Your task to perform on an android device: open wifi settings Image 0: 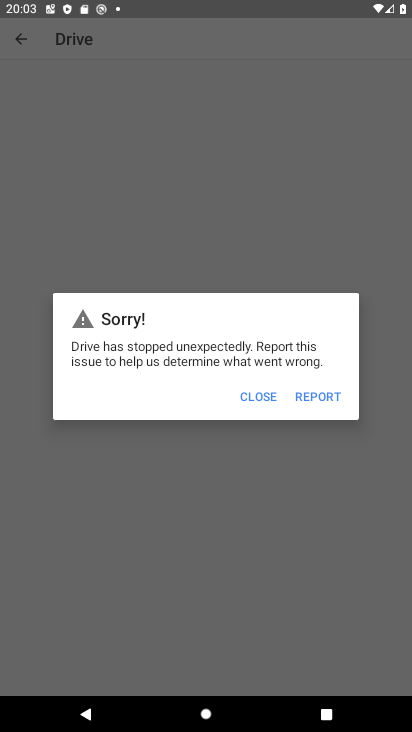
Step 0: press home button
Your task to perform on an android device: open wifi settings Image 1: 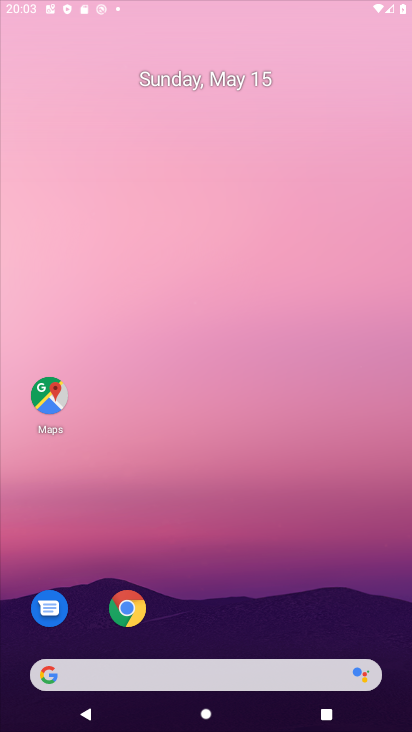
Step 1: drag from (239, 595) to (266, 57)
Your task to perform on an android device: open wifi settings Image 2: 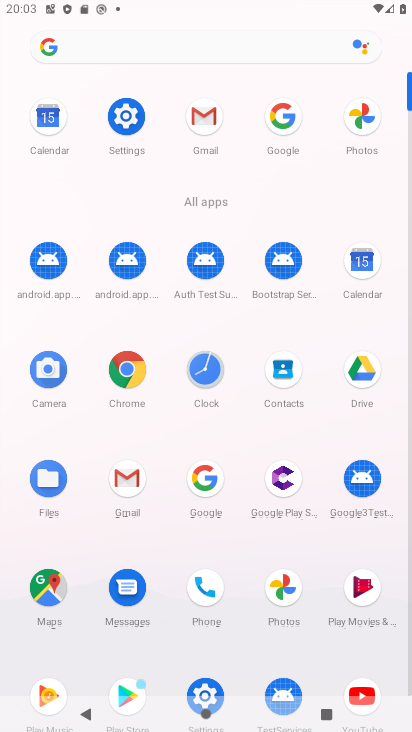
Step 2: click (129, 107)
Your task to perform on an android device: open wifi settings Image 3: 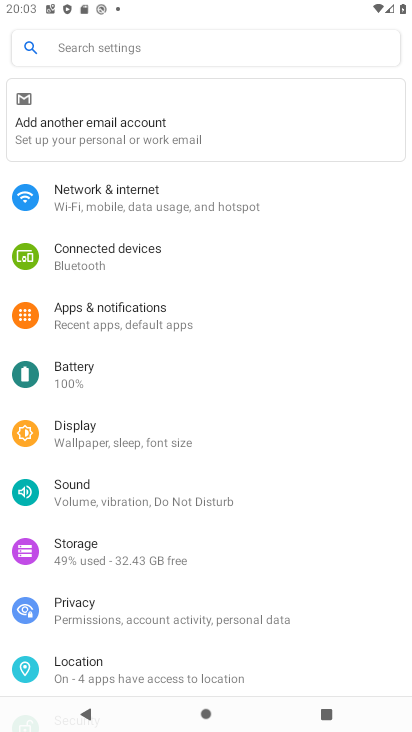
Step 3: click (170, 190)
Your task to perform on an android device: open wifi settings Image 4: 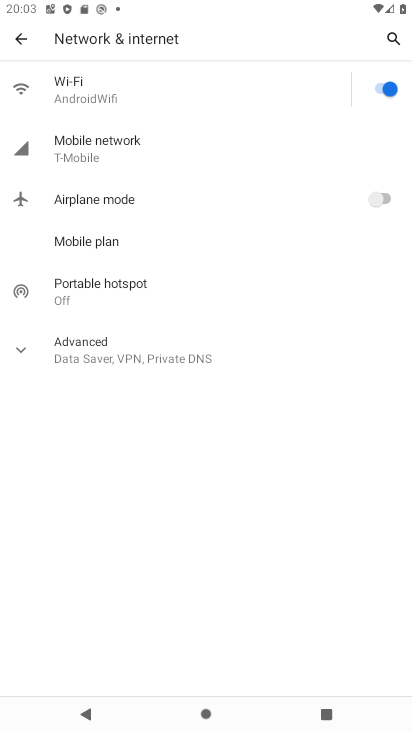
Step 4: click (117, 94)
Your task to perform on an android device: open wifi settings Image 5: 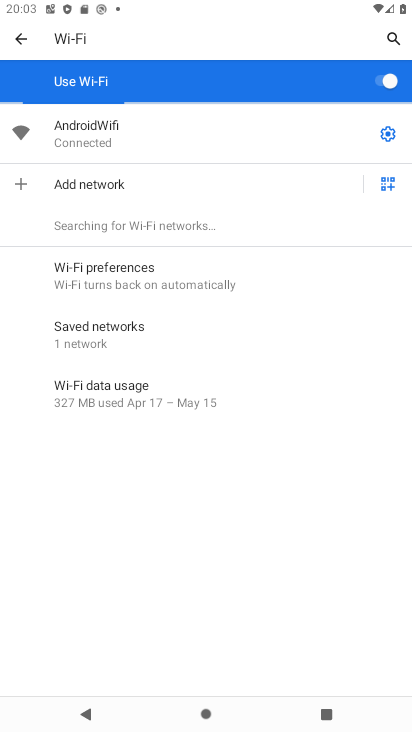
Step 5: click (380, 136)
Your task to perform on an android device: open wifi settings Image 6: 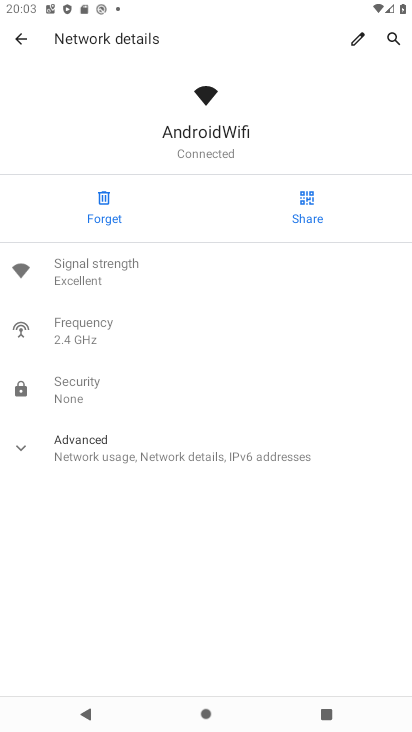
Step 6: task complete